Your task to perform on an android device: Play the last video I watched on Youtube Image 0: 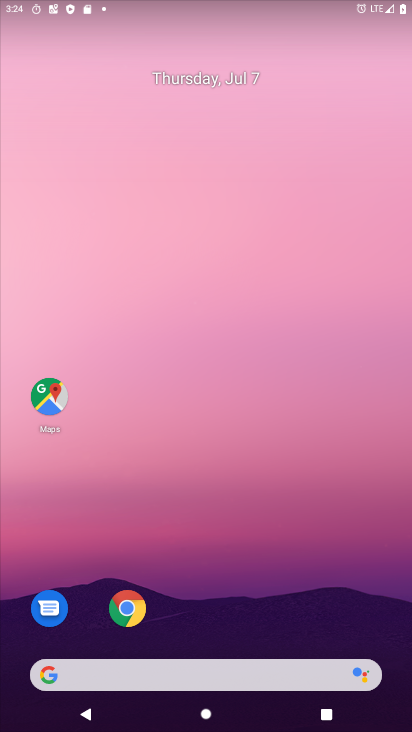
Step 0: drag from (243, 725) to (247, 146)
Your task to perform on an android device: Play the last video I watched on Youtube Image 1: 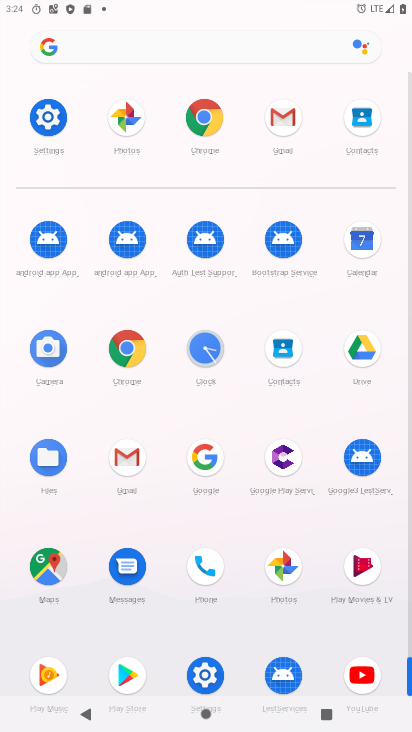
Step 1: click (363, 670)
Your task to perform on an android device: Play the last video I watched on Youtube Image 2: 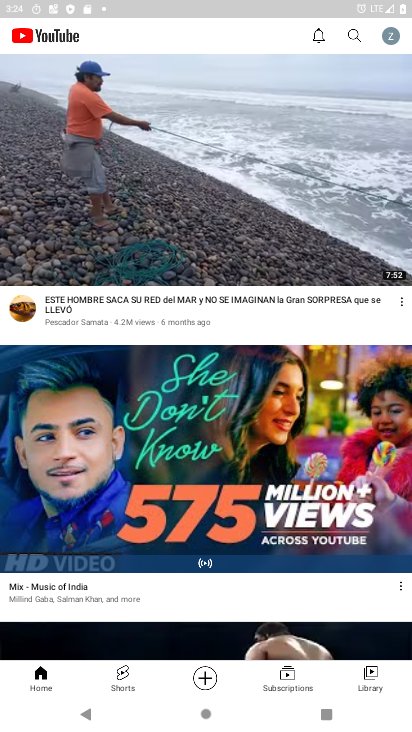
Step 2: click (373, 680)
Your task to perform on an android device: Play the last video I watched on Youtube Image 3: 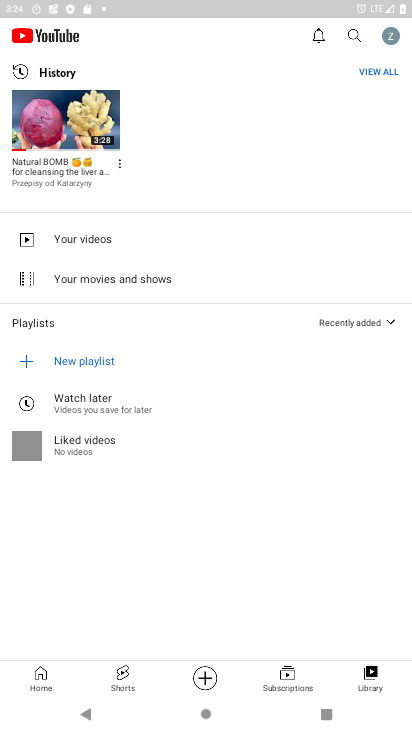
Step 3: click (73, 125)
Your task to perform on an android device: Play the last video I watched on Youtube Image 4: 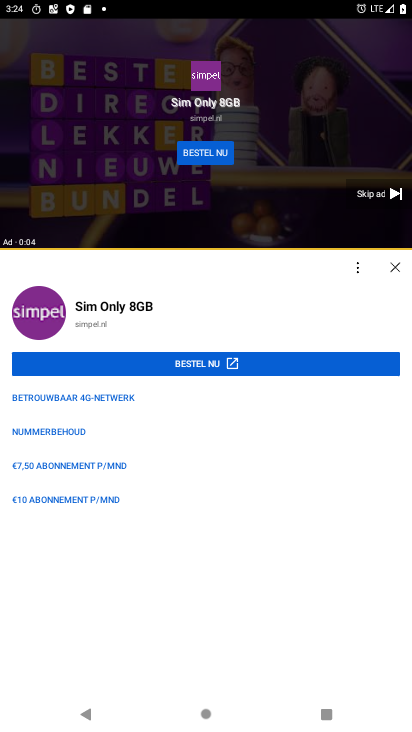
Step 4: click (363, 196)
Your task to perform on an android device: Play the last video I watched on Youtube Image 5: 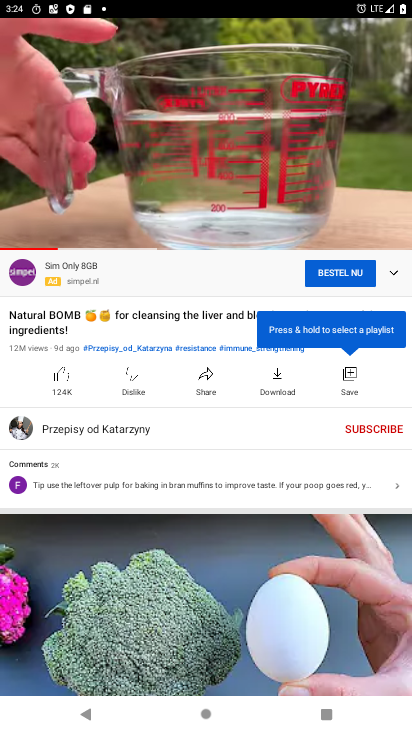
Step 5: task complete